Your task to perform on an android device: toggle wifi Image 0: 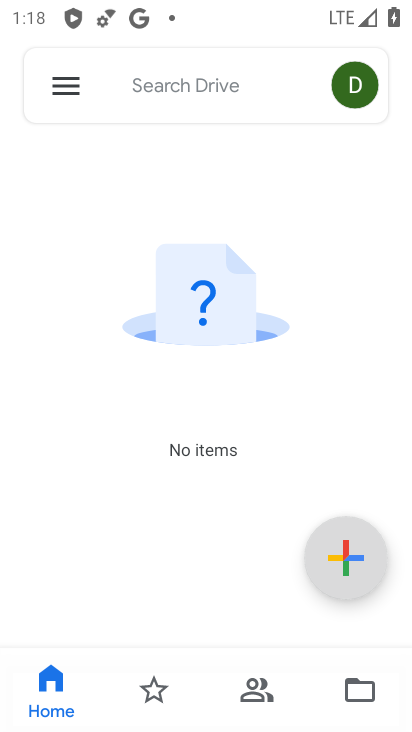
Step 0: press back button
Your task to perform on an android device: toggle wifi Image 1: 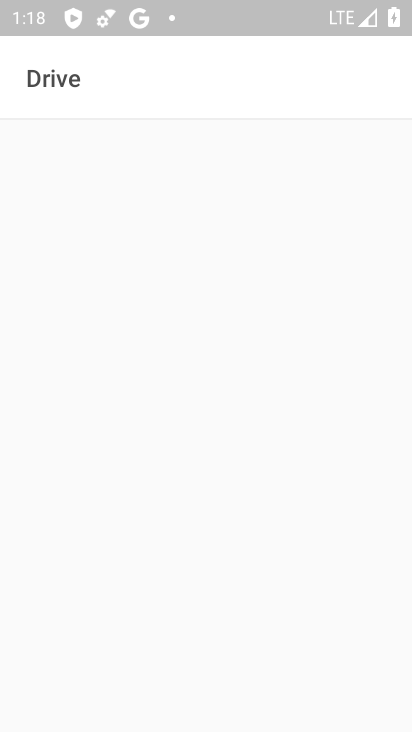
Step 1: press back button
Your task to perform on an android device: toggle wifi Image 2: 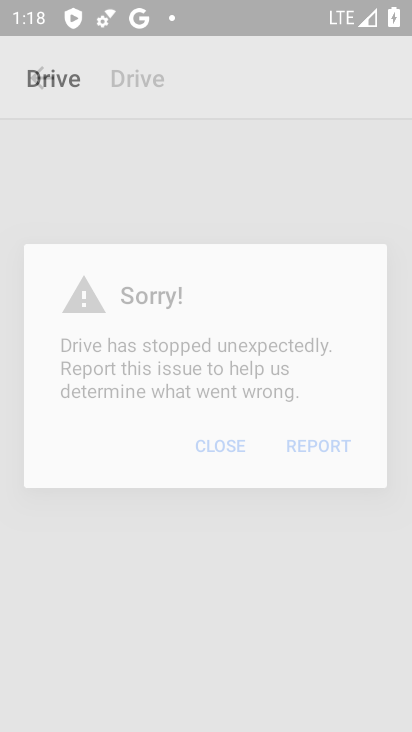
Step 2: press back button
Your task to perform on an android device: toggle wifi Image 3: 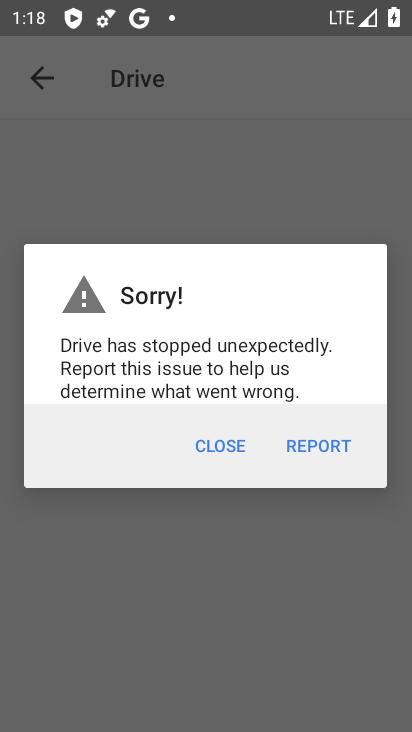
Step 3: press home button
Your task to perform on an android device: toggle wifi Image 4: 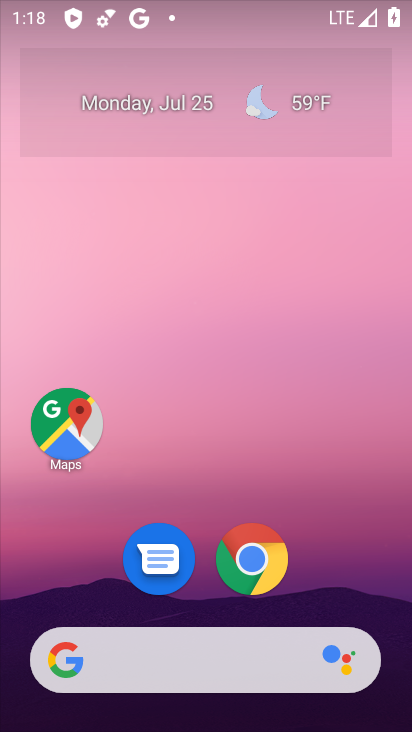
Step 4: drag from (141, 13) to (112, 588)
Your task to perform on an android device: toggle wifi Image 5: 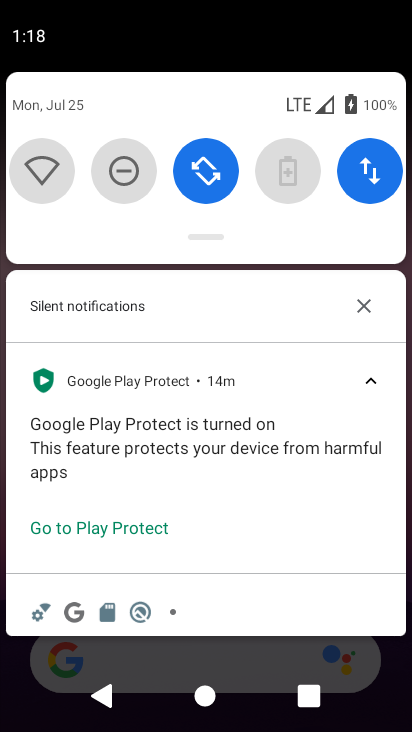
Step 5: click (27, 162)
Your task to perform on an android device: toggle wifi Image 6: 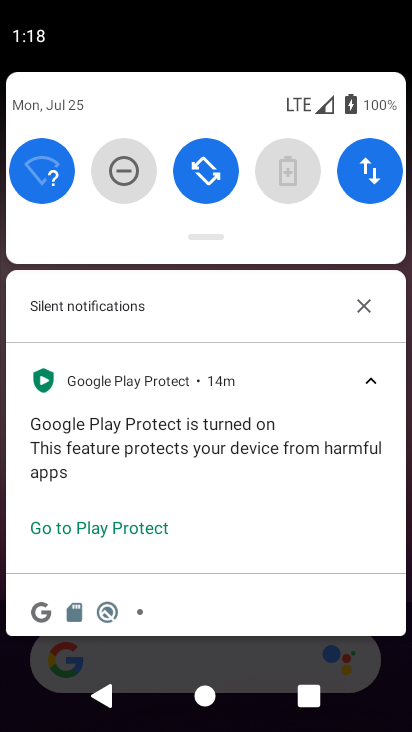
Step 6: task complete